Your task to perform on an android device: Show me popular videos on Youtube Image 0: 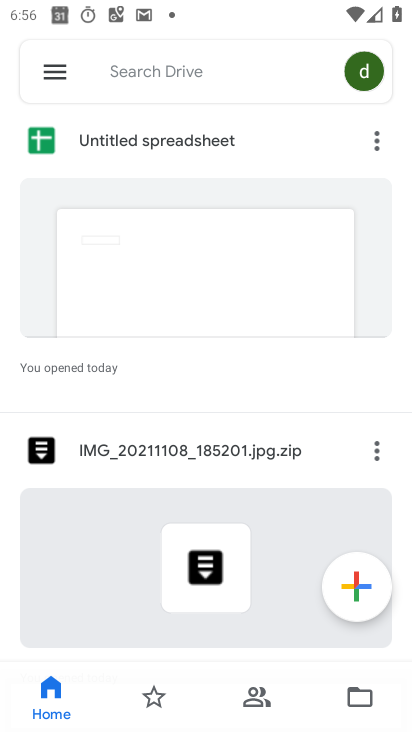
Step 0: press home button
Your task to perform on an android device: Show me popular videos on Youtube Image 1: 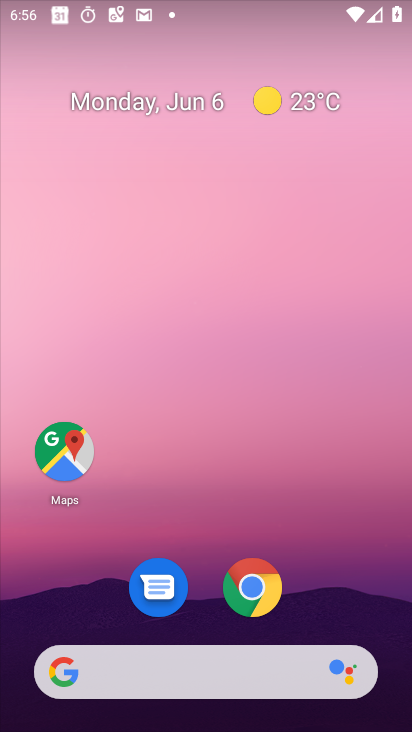
Step 1: drag from (401, 646) to (295, 34)
Your task to perform on an android device: Show me popular videos on Youtube Image 2: 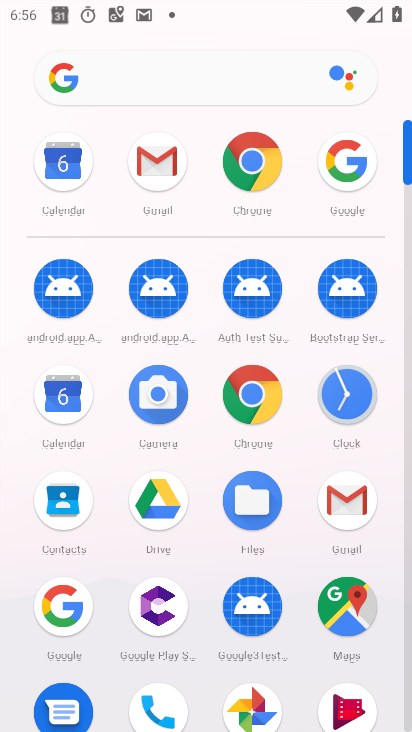
Step 2: drag from (291, 688) to (292, 191)
Your task to perform on an android device: Show me popular videos on Youtube Image 3: 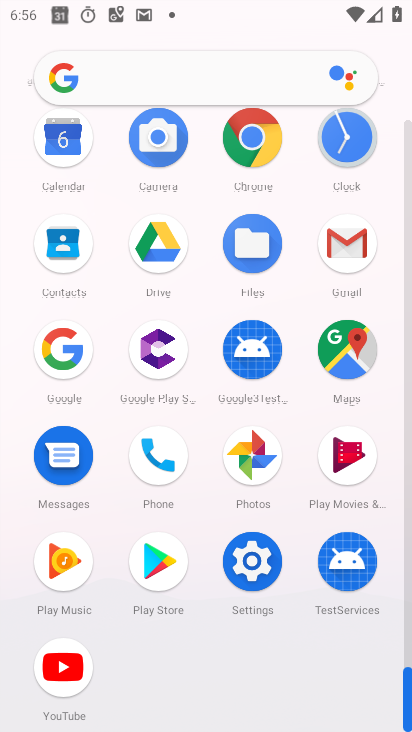
Step 3: click (16, 679)
Your task to perform on an android device: Show me popular videos on Youtube Image 4: 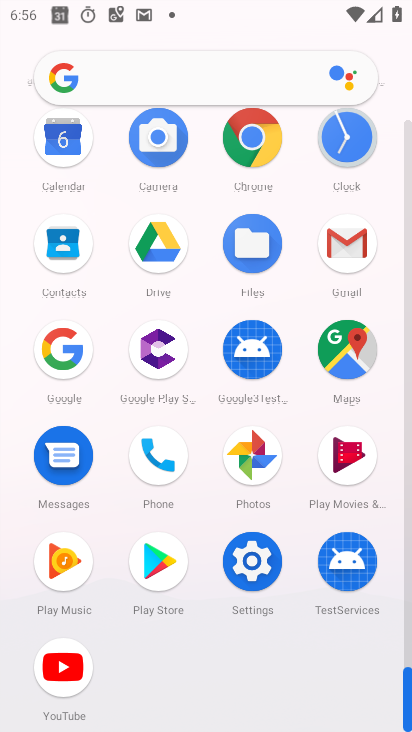
Step 4: click (53, 677)
Your task to perform on an android device: Show me popular videos on Youtube Image 5: 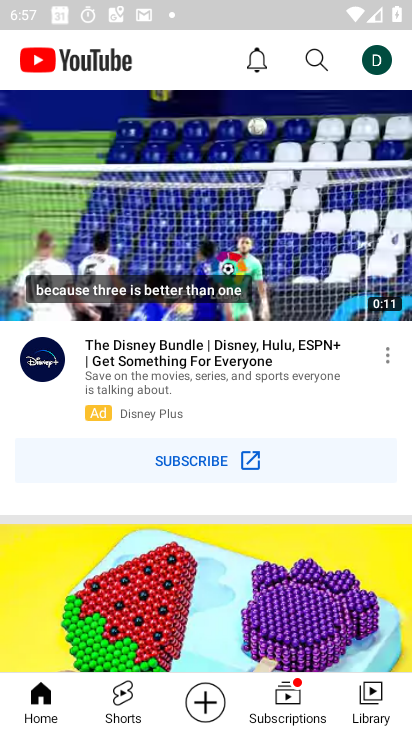
Step 5: click (373, 68)
Your task to perform on an android device: Show me popular videos on Youtube Image 6: 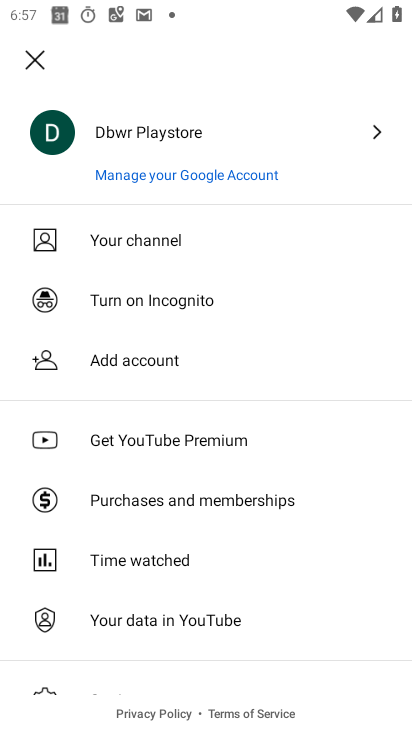
Step 6: press back button
Your task to perform on an android device: Show me popular videos on Youtube Image 7: 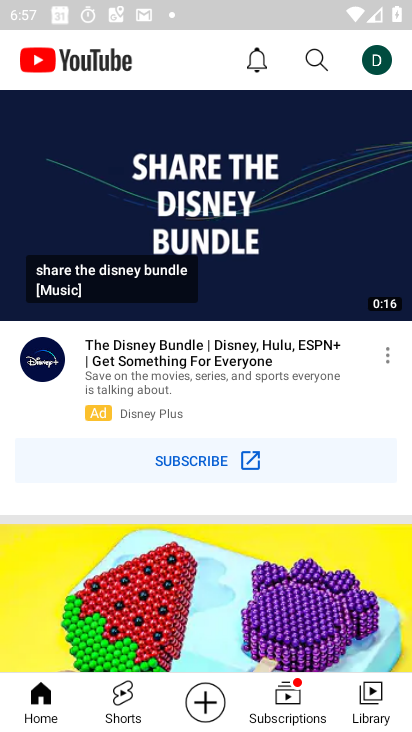
Step 7: click (287, 698)
Your task to perform on an android device: Show me popular videos on Youtube Image 8: 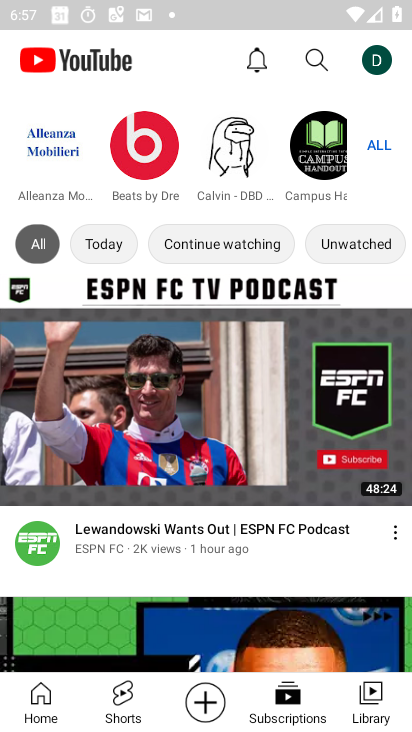
Step 8: task complete